Your task to perform on an android device: toggle priority inbox in the gmail app Image 0: 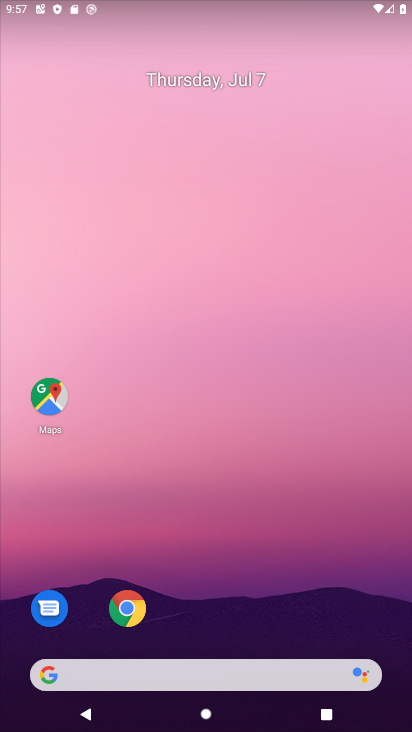
Step 0: drag from (209, 612) to (209, 107)
Your task to perform on an android device: toggle priority inbox in the gmail app Image 1: 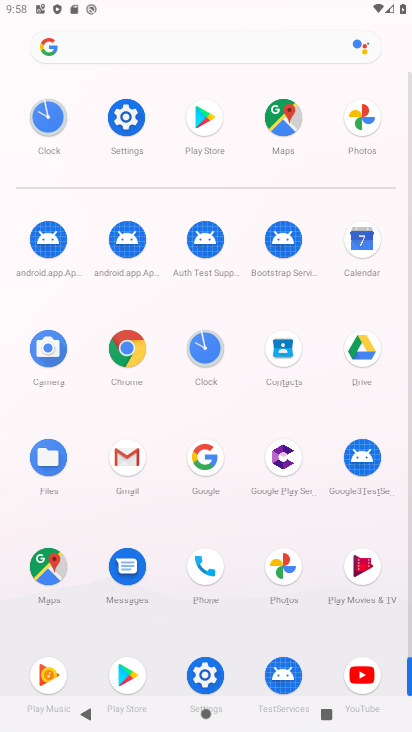
Step 1: click (125, 458)
Your task to perform on an android device: toggle priority inbox in the gmail app Image 2: 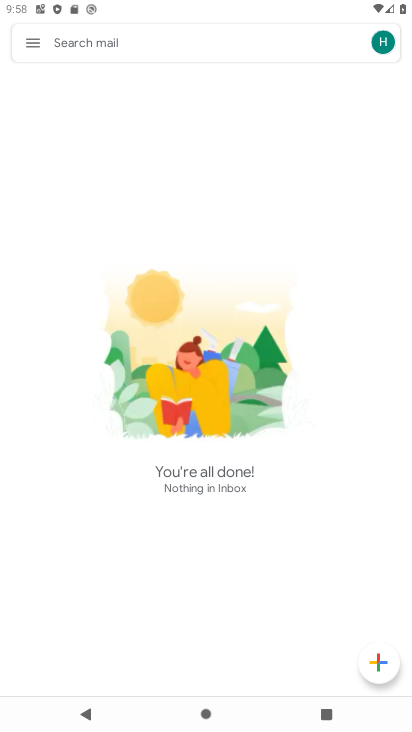
Step 2: click (30, 44)
Your task to perform on an android device: toggle priority inbox in the gmail app Image 3: 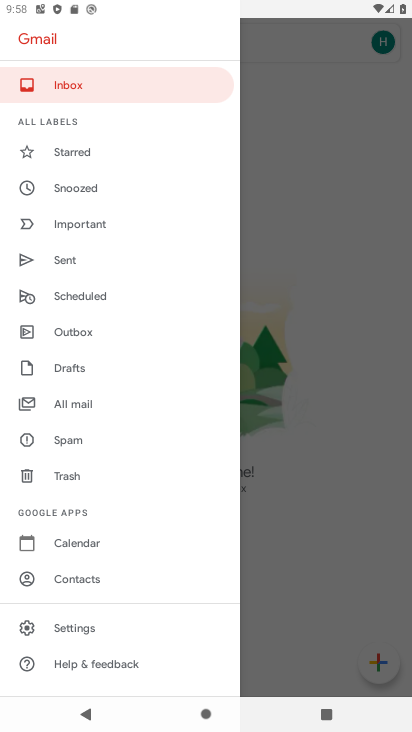
Step 3: click (92, 622)
Your task to perform on an android device: toggle priority inbox in the gmail app Image 4: 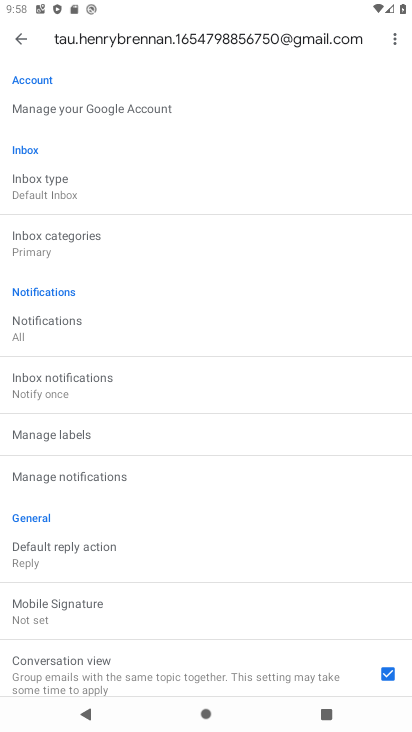
Step 4: click (45, 187)
Your task to perform on an android device: toggle priority inbox in the gmail app Image 5: 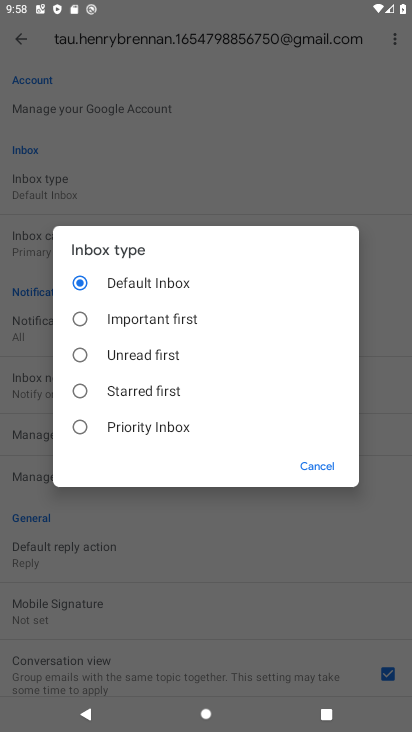
Step 5: click (78, 423)
Your task to perform on an android device: toggle priority inbox in the gmail app Image 6: 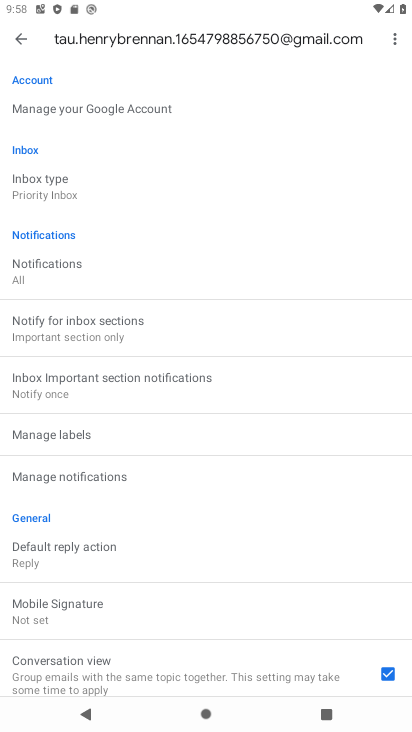
Step 6: task complete